Your task to perform on an android device: View the shopping cart on amazon.com. Search for macbook pro 15 inch on amazon.com, select the first entry, and add it to the cart. Image 0: 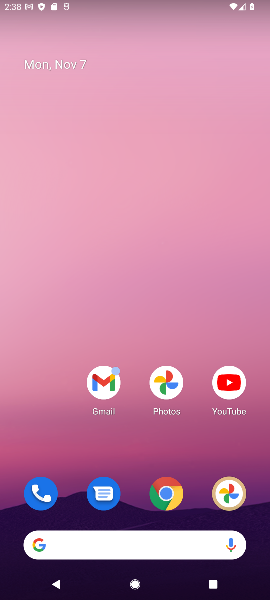
Step 0: press home button
Your task to perform on an android device: View the shopping cart on amazon.com. Search for macbook pro 15 inch on amazon.com, select the first entry, and add it to the cart. Image 1: 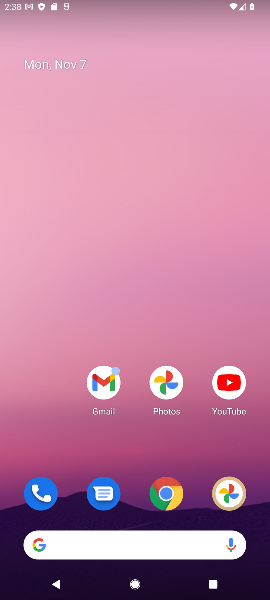
Step 1: drag from (133, 455) to (144, 87)
Your task to perform on an android device: View the shopping cart on amazon.com. Search for macbook pro 15 inch on amazon.com, select the first entry, and add it to the cart. Image 2: 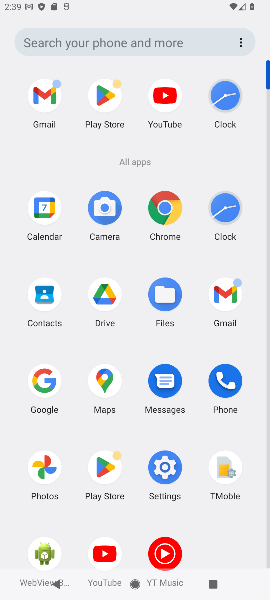
Step 2: click (167, 204)
Your task to perform on an android device: View the shopping cart on amazon.com. Search for macbook pro 15 inch on amazon.com, select the first entry, and add it to the cart. Image 3: 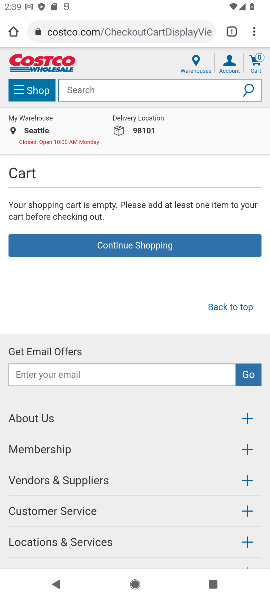
Step 3: click (80, 32)
Your task to perform on an android device: View the shopping cart on amazon.com. Search for macbook pro 15 inch on amazon.com, select the first entry, and add it to the cart. Image 4: 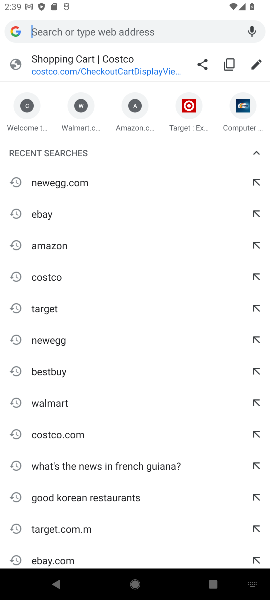
Step 4: type "amazon.com"
Your task to perform on an android device: View the shopping cart on amazon.com. Search for macbook pro 15 inch on amazon.com, select the first entry, and add it to the cart. Image 5: 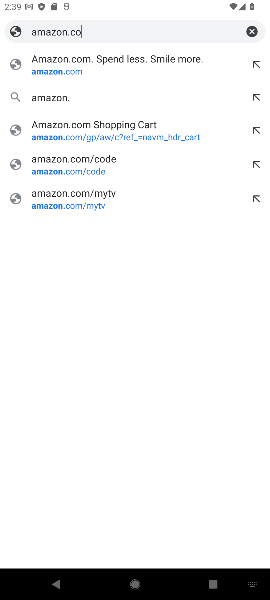
Step 5: type ""
Your task to perform on an android device: View the shopping cart on amazon.com. Search for macbook pro 15 inch on amazon.com, select the first entry, and add it to the cart. Image 6: 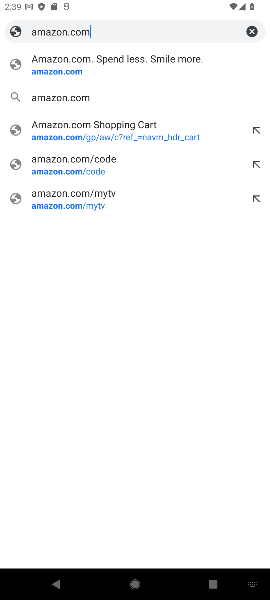
Step 6: click (87, 67)
Your task to perform on an android device: View the shopping cart on amazon.com. Search for macbook pro 15 inch on amazon.com, select the first entry, and add it to the cart. Image 7: 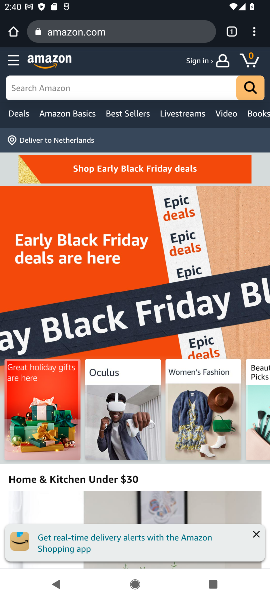
Step 7: click (96, 84)
Your task to perform on an android device: View the shopping cart on amazon.com. Search for macbook pro 15 inch on amazon.com, select the first entry, and add it to the cart. Image 8: 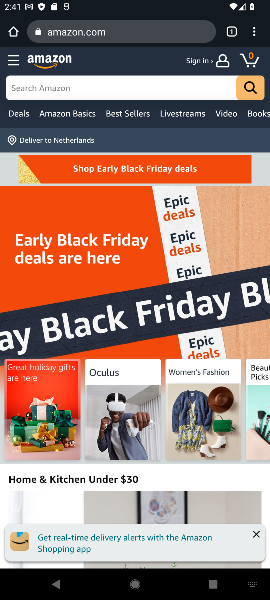
Step 8: type "macbook pro 15"
Your task to perform on an android device: View the shopping cart on amazon.com. Search for macbook pro 15 inch on amazon.com, select the first entry, and add it to the cart. Image 9: 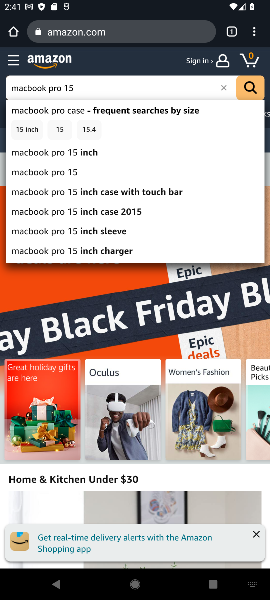
Step 9: click (77, 167)
Your task to perform on an android device: View the shopping cart on amazon.com. Search for macbook pro 15 inch on amazon.com, select the first entry, and add it to the cart. Image 10: 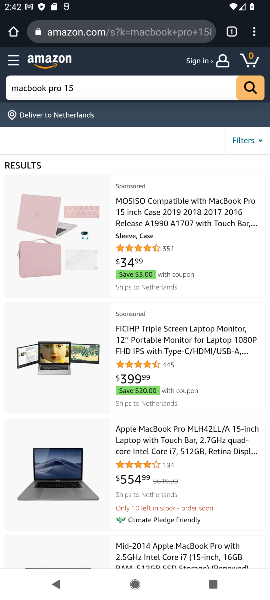
Step 10: click (157, 440)
Your task to perform on an android device: View the shopping cart on amazon.com. Search for macbook pro 15 inch on amazon.com, select the first entry, and add it to the cart. Image 11: 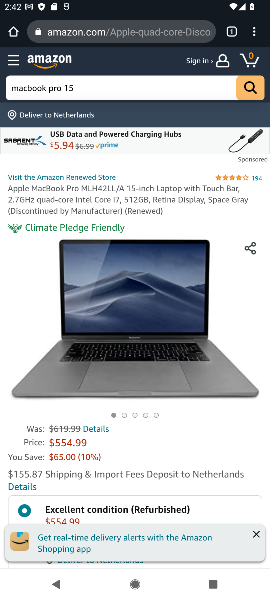
Step 11: drag from (138, 456) to (157, 202)
Your task to perform on an android device: View the shopping cart on amazon.com. Search for macbook pro 15 inch on amazon.com, select the first entry, and add it to the cart. Image 12: 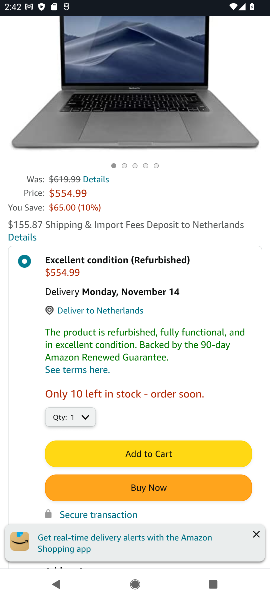
Step 12: click (140, 452)
Your task to perform on an android device: View the shopping cart on amazon.com. Search for macbook pro 15 inch on amazon.com, select the first entry, and add it to the cart. Image 13: 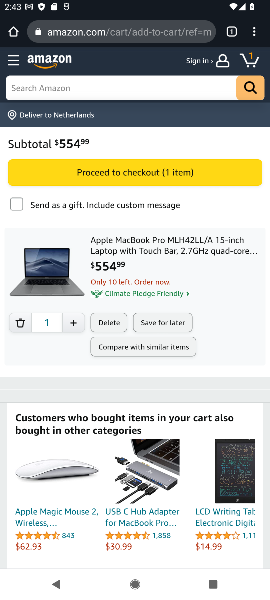
Step 13: click (125, 171)
Your task to perform on an android device: View the shopping cart on amazon.com. Search for macbook pro 15 inch on amazon.com, select the first entry, and add it to the cart. Image 14: 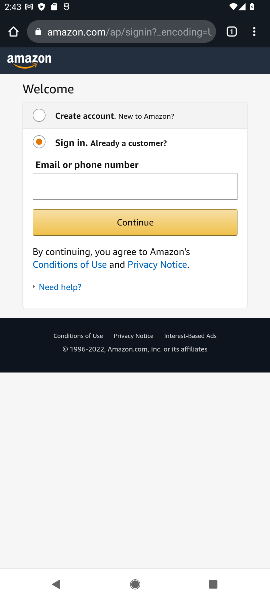
Step 14: task complete